Your task to perform on an android device: Open calendar and show me the second week of next month Image 0: 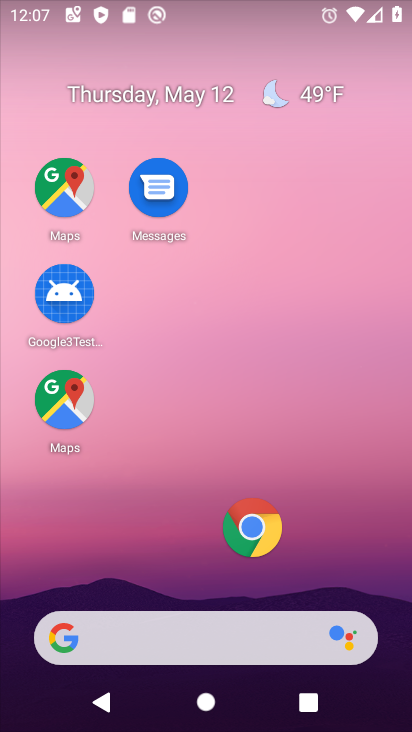
Step 0: drag from (241, 601) to (175, 241)
Your task to perform on an android device: Open calendar and show me the second week of next month Image 1: 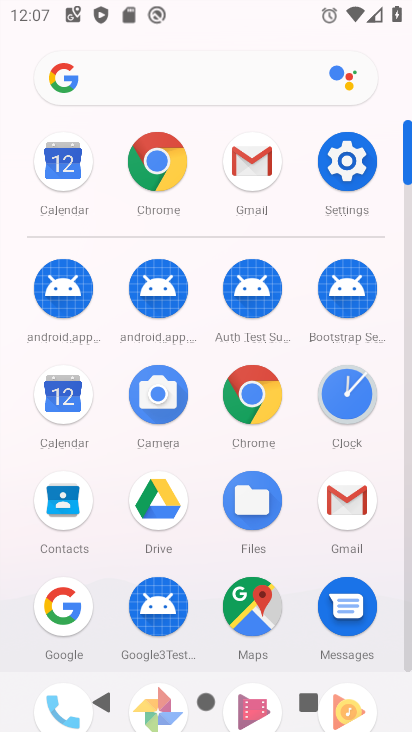
Step 1: click (66, 420)
Your task to perform on an android device: Open calendar and show me the second week of next month Image 2: 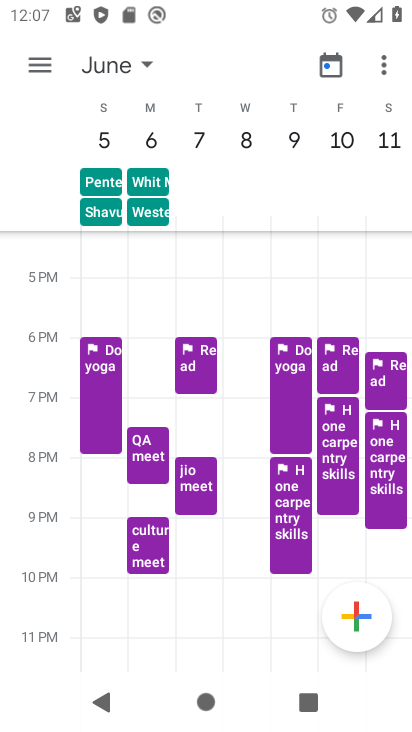
Step 2: task complete